Your task to perform on an android device: turn on location history Image 0: 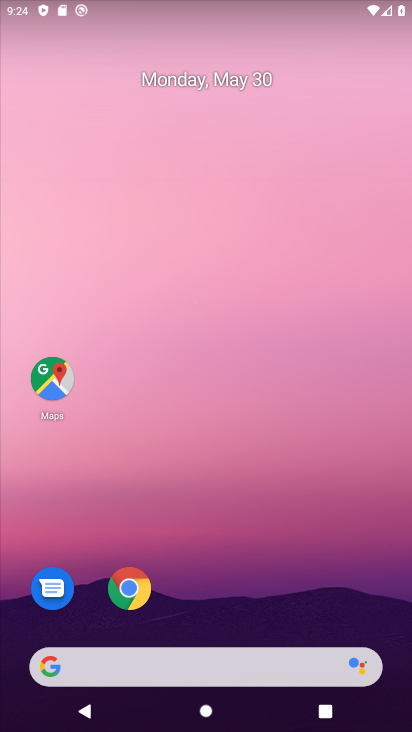
Step 0: drag from (231, 600) to (172, 3)
Your task to perform on an android device: turn on location history Image 1: 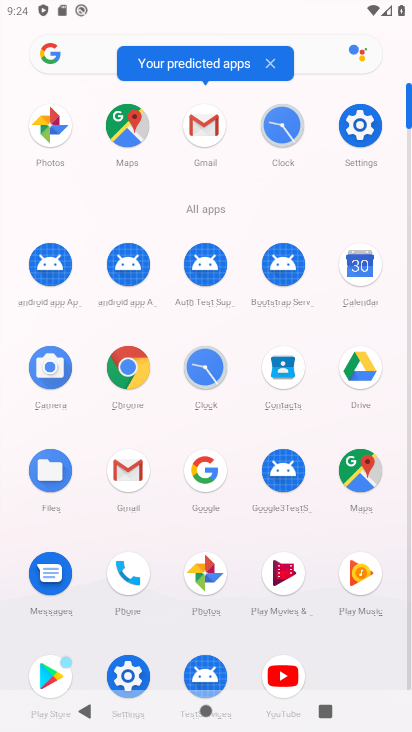
Step 1: click (370, 139)
Your task to perform on an android device: turn on location history Image 2: 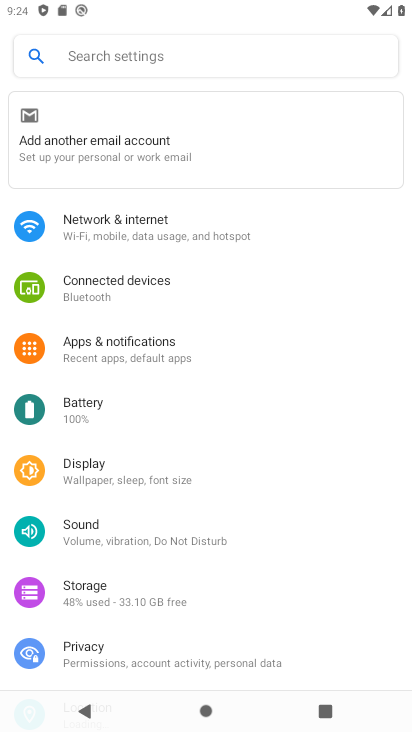
Step 2: drag from (127, 613) to (129, 405)
Your task to perform on an android device: turn on location history Image 3: 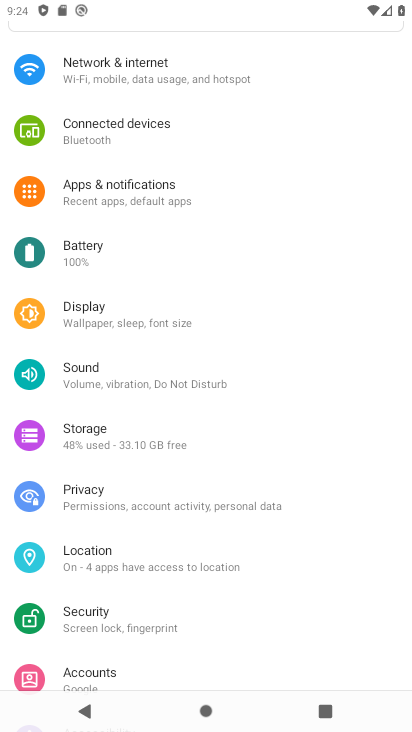
Step 3: click (126, 556)
Your task to perform on an android device: turn on location history Image 4: 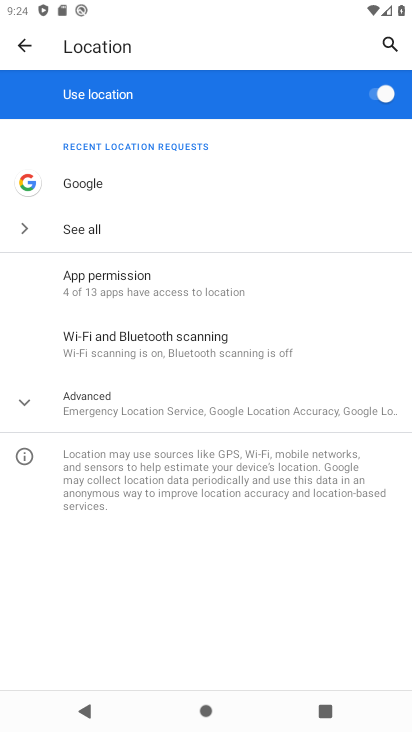
Step 4: click (147, 414)
Your task to perform on an android device: turn on location history Image 5: 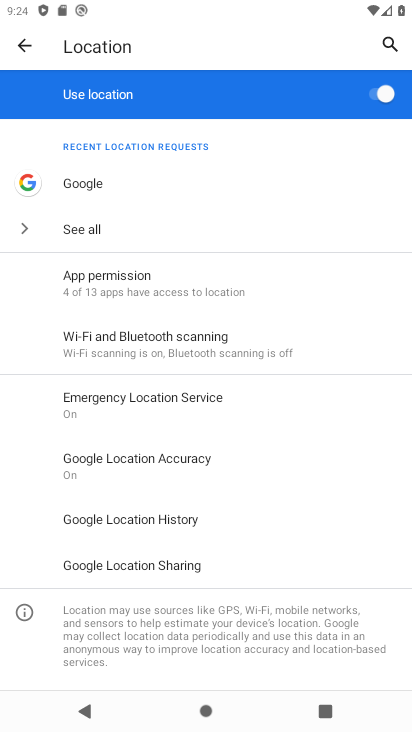
Step 5: click (152, 524)
Your task to perform on an android device: turn on location history Image 6: 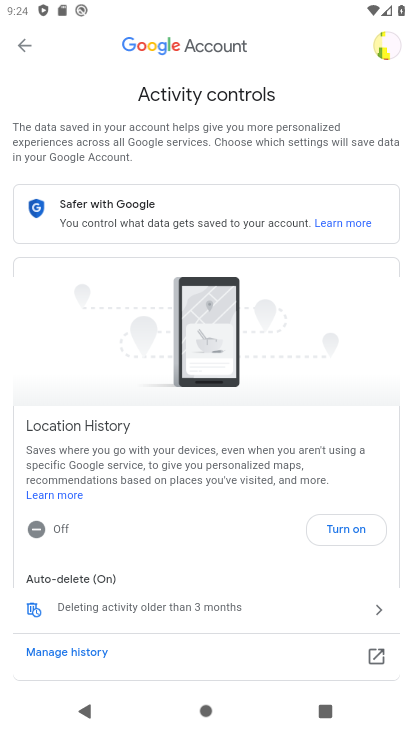
Step 6: click (336, 523)
Your task to perform on an android device: turn on location history Image 7: 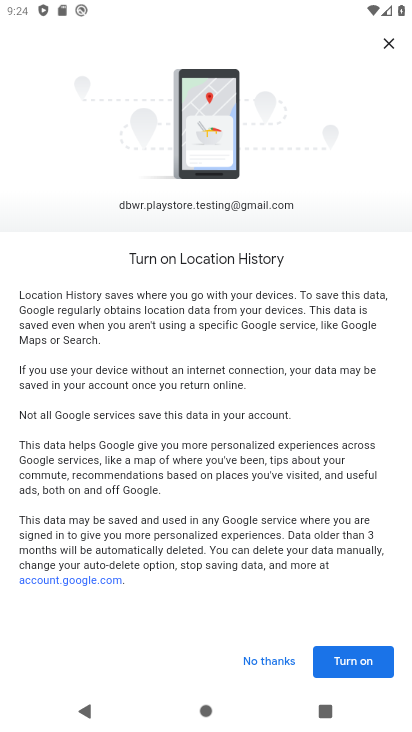
Step 7: click (353, 657)
Your task to perform on an android device: turn on location history Image 8: 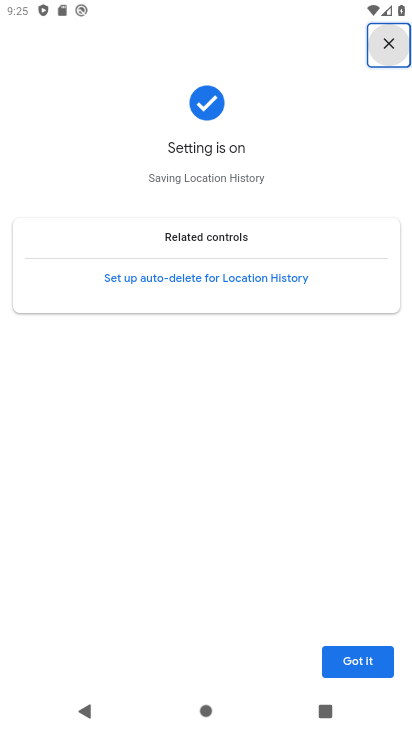
Step 8: click (353, 657)
Your task to perform on an android device: turn on location history Image 9: 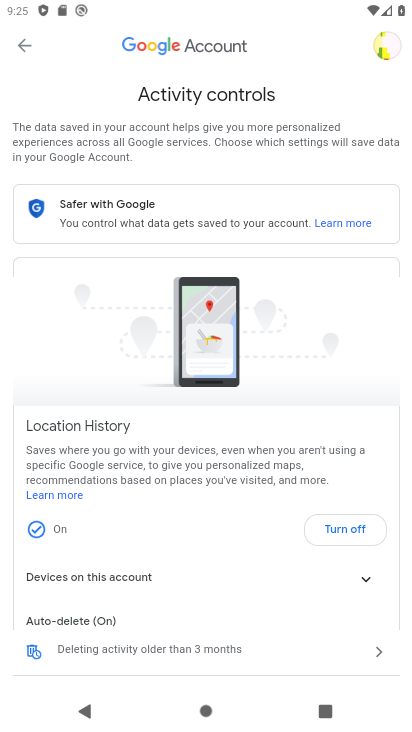
Step 9: task complete